Your task to perform on an android device: uninstall "LinkedIn" Image 0: 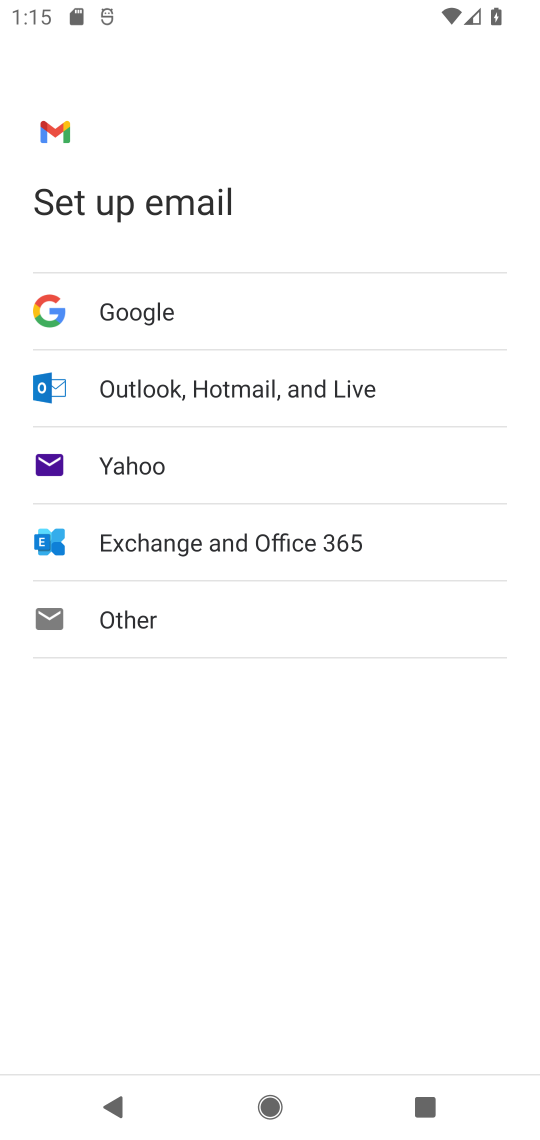
Step 0: press home button
Your task to perform on an android device: uninstall "LinkedIn" Image 1: 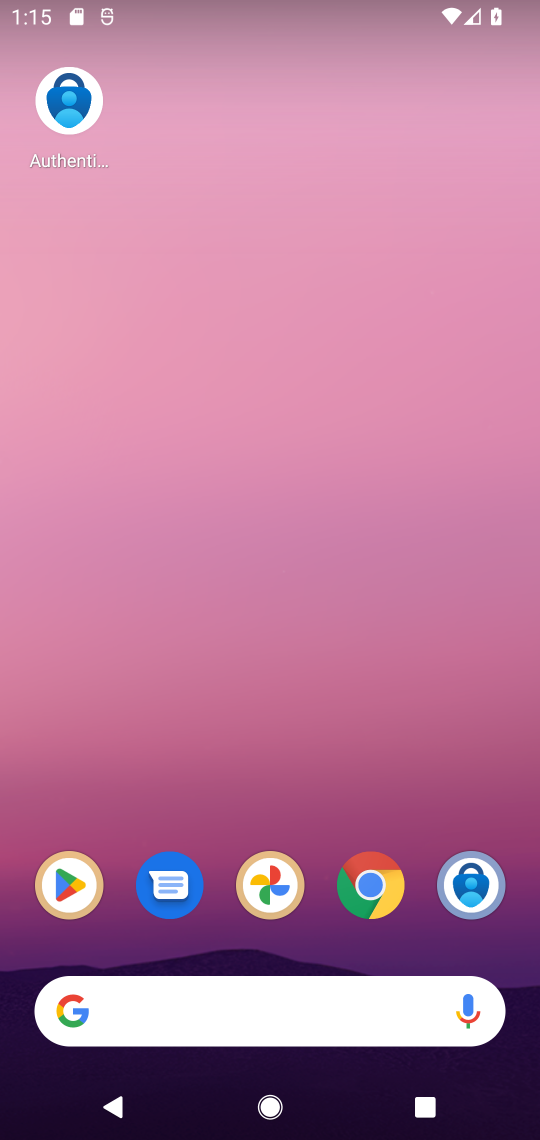
Step 1: click (64, 876)
Your task to perform on an android device: uninstall "LinkedIn" Image 2: 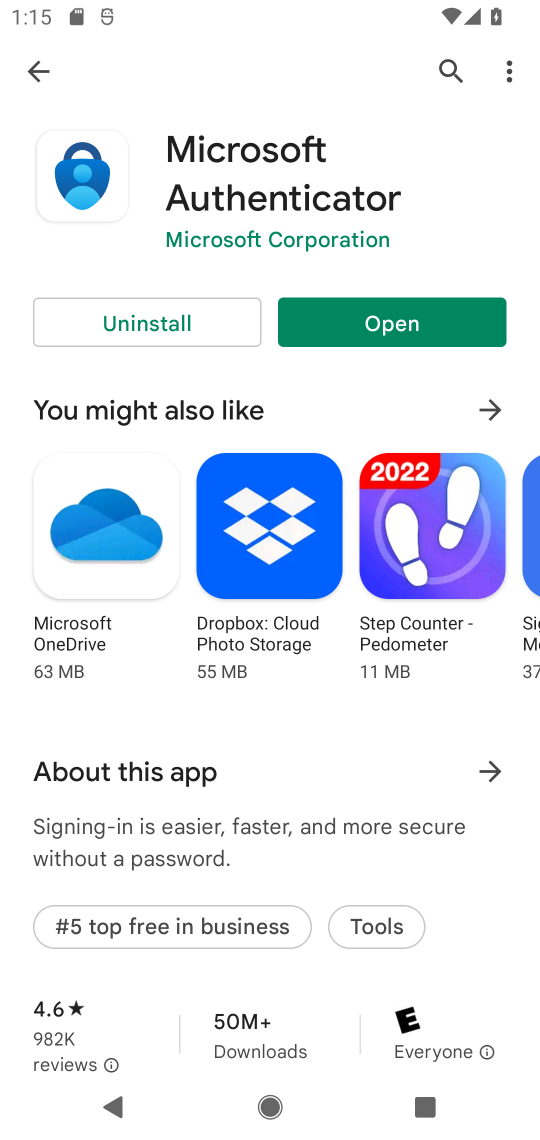
Step 2: click (452, 72)
Your task to perform on an android device: uninstall "LinkedIn" Image 3: 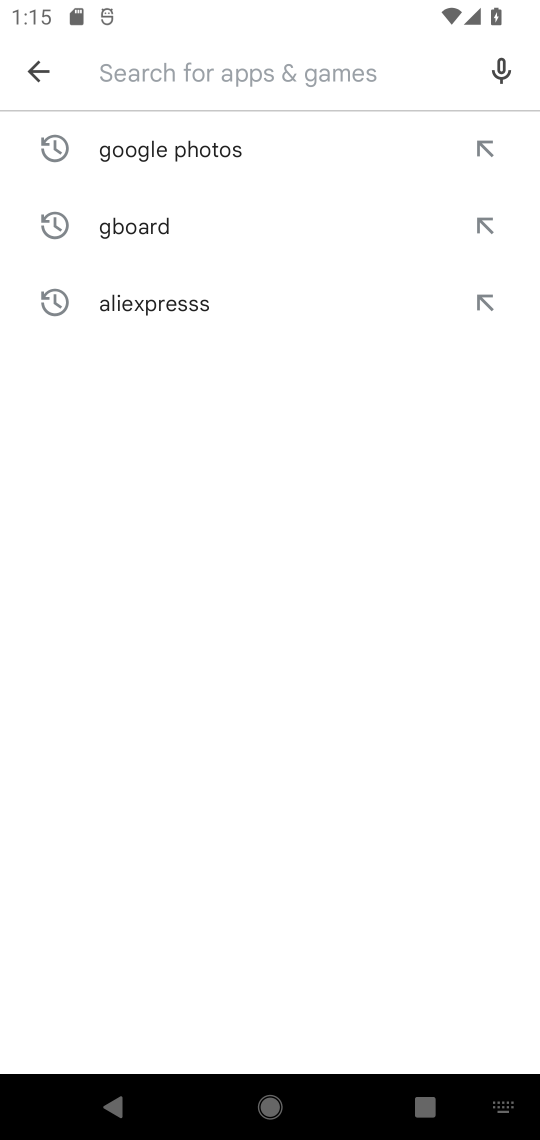
Step 3: type "linkedin"
Your task to perform on an android device: uninstall "LinkedIn" Image 4: 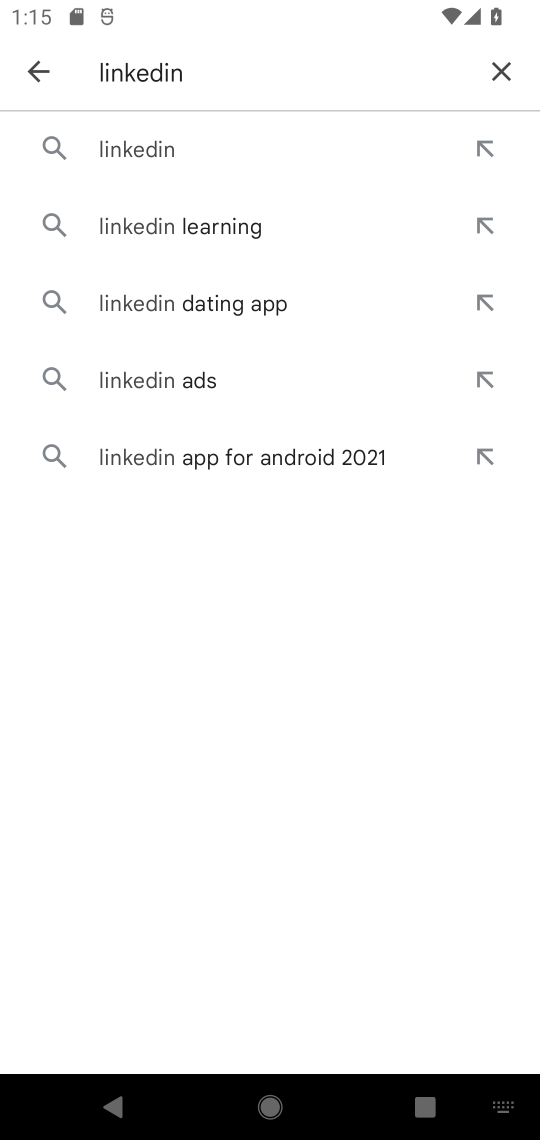
Step 4: click (292, 139)
Your task to perform on an android device: uninstall "LinkedIn" Image 5: 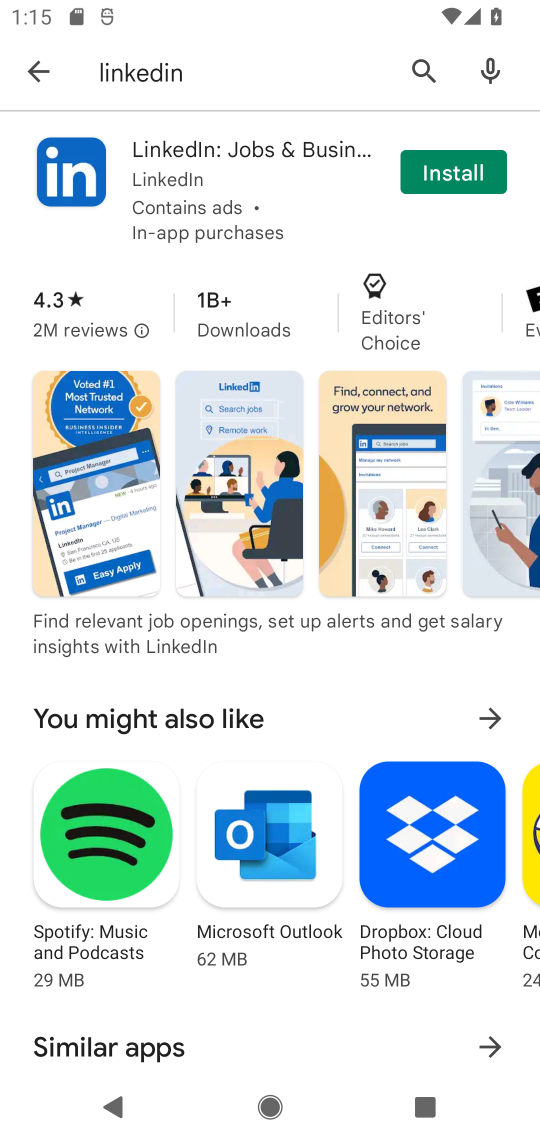
Step 5: click (266, 141)
Your task to perform on an android device: uninstall "LinkedIn" Image 6: 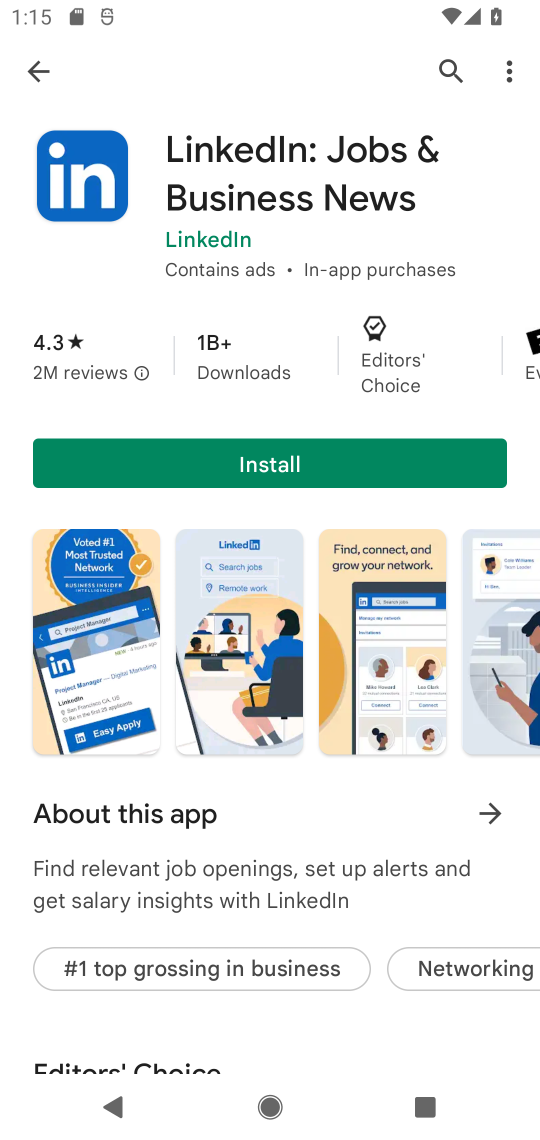
Step 6: task complete